Your task to perform on an android device: Search for flights from Mexico city to Sydney Image 0: 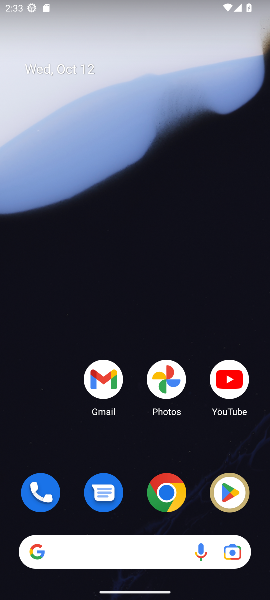
Step 0: click (162, 495)
Your task to perform on an android device: Search for flights from Mexico city to Sydney Image 1: 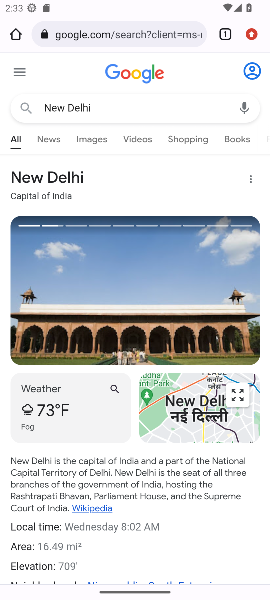
Step 1: click (115, 38)
Your task to perform on an android device: Search for flights from Mexico city to Sydney Image 2: 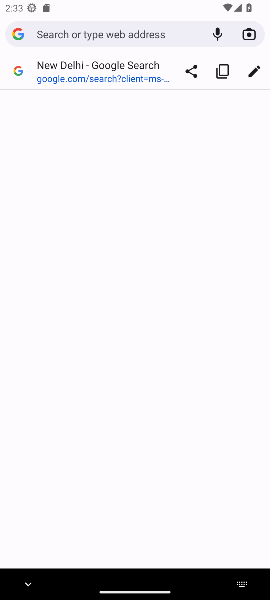
Step 2: type "Mexico city to Sydney flights"
Your task to perform on an android device: Search for flights from Mexico city to Sydney Image 3: 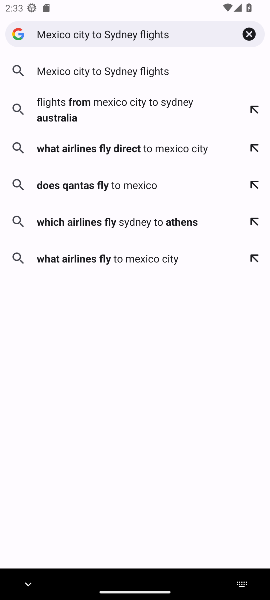
Step 3: click (86, 77)
Your task to perform on an android device: Search for flights from Mexico city to Sydney Image 4: 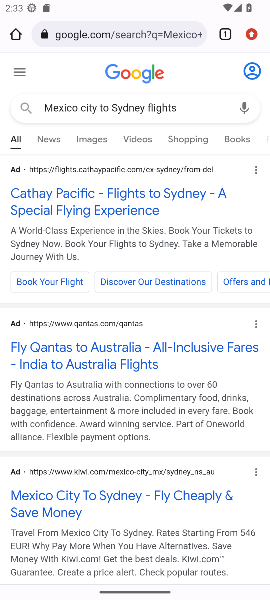
Step 4: drag from (213, 145) to (5, 146)
Your task to perform on an android device: Search for flights from Mexico city to Sydney Image 5: 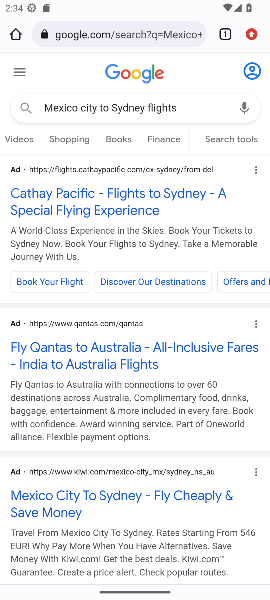
Step 5: drag from (214, 133) to (0, 151)
Your task to perform on an android device: Search for flights from Mexico city to Sydney Image 6: 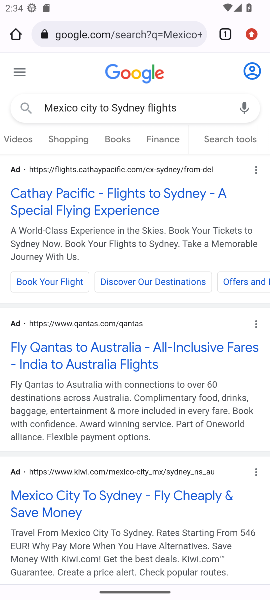
Step 6: click (90, 208)
Your task to perform on an android device: Search for flights from Mexico city to Sydney Image 7: 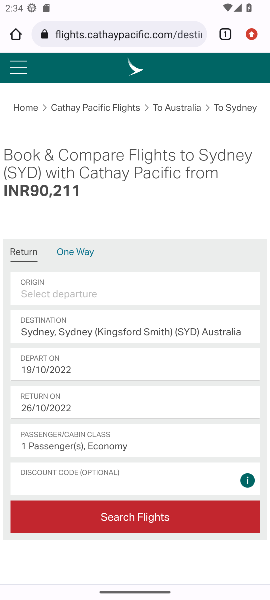
Step 7: drag from (90, 210) to (88, 52)
Your task to perform on an android device: Search for flights from Mexico city to Sydney Image 8: 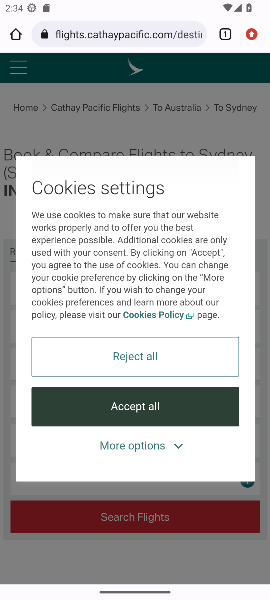
Step 8: press back button
Your task to perform on an android device: Search for flights from Mexico city to Sydney Image 9: 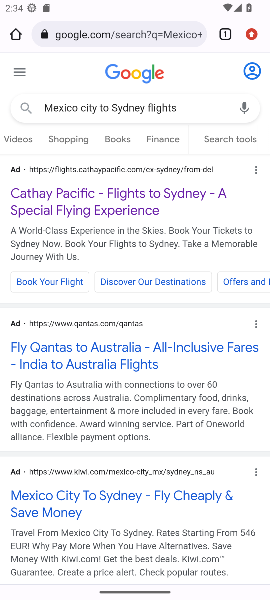
Step 9: click (72, 369)
Your task to perform on an android device: Search for flights from Mexico city to Sydney Image 10: 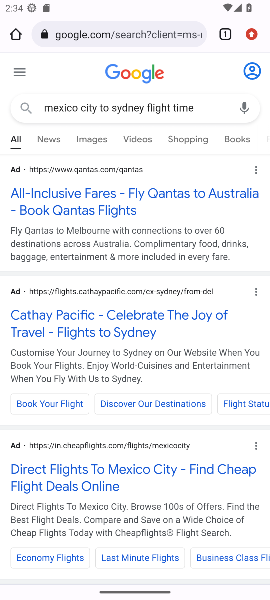
Step 10: click (68, 475)
Your task to perform on an android device: Search for flights from Mexico city to Sydney Image 11: 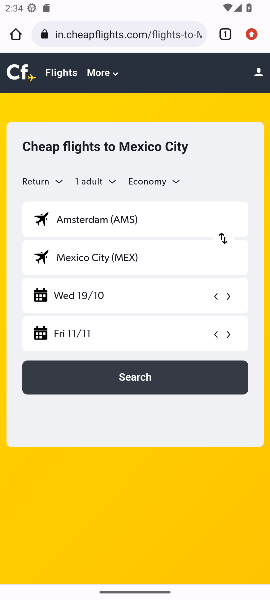
Step 11: task complete